Your task to perform on an android device: check out phone information Image 0: 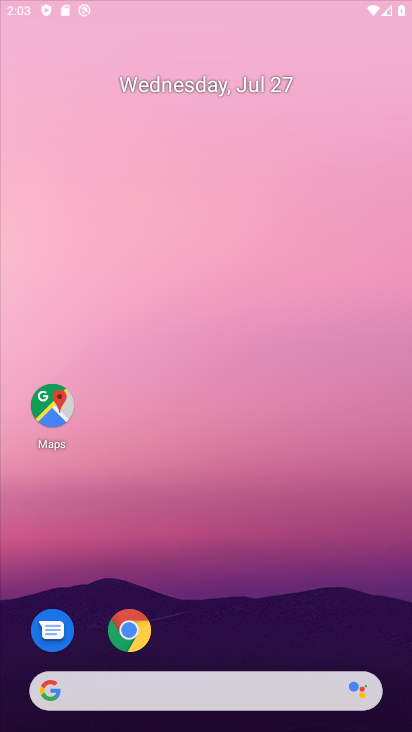
Step 0: press back button
Your task to perform on an android device: check out phone information Image 1: 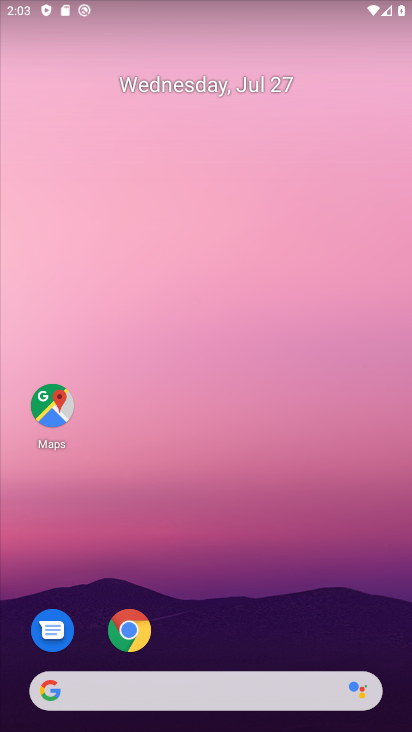
Step 1: drag from (275, 662) to (201, 157)
Your task to perform on an android device: check out phone information Image 2: 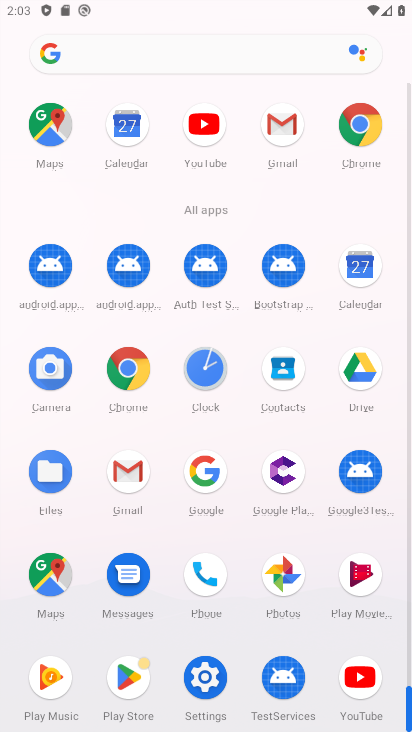
Step 2: click (202, 678)
Your task to perform on an android device: check out phone information Image 3: 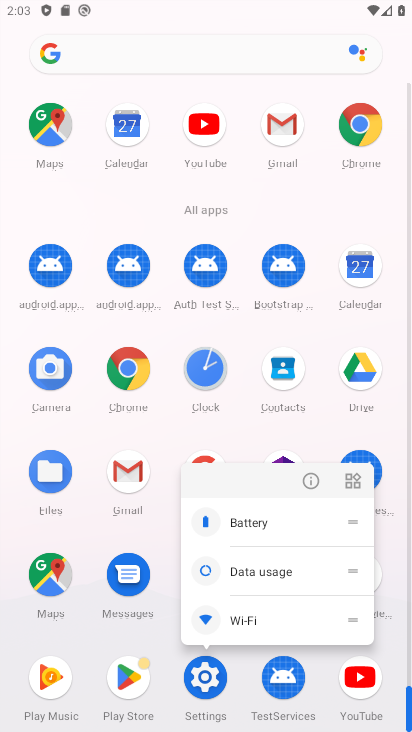
Step 3: click (208, 677)
Your task to perform on an android device: check out phone information Image 4: 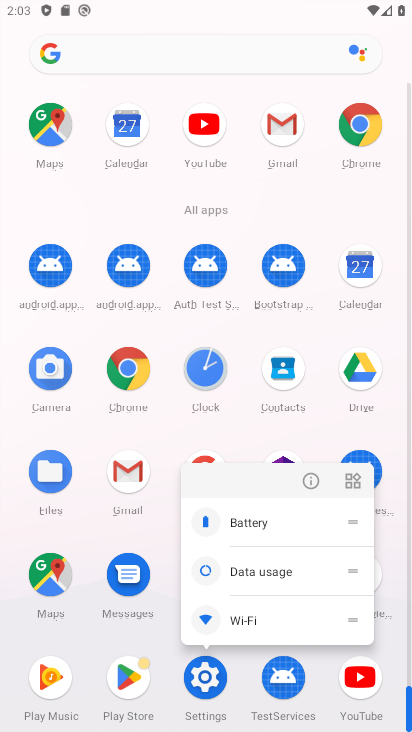
Step 4: click (211, 673)
Your task to perform on an android device: check out phone information Image 5: 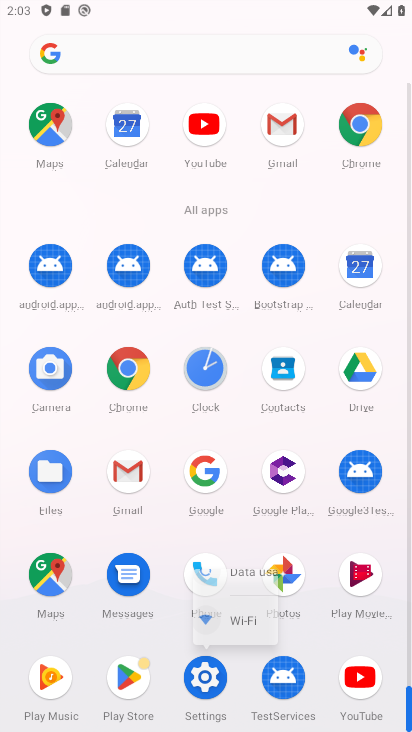
Step 5: click (211, 673)
Your task to perform on an android device: check out phone information Image 6: 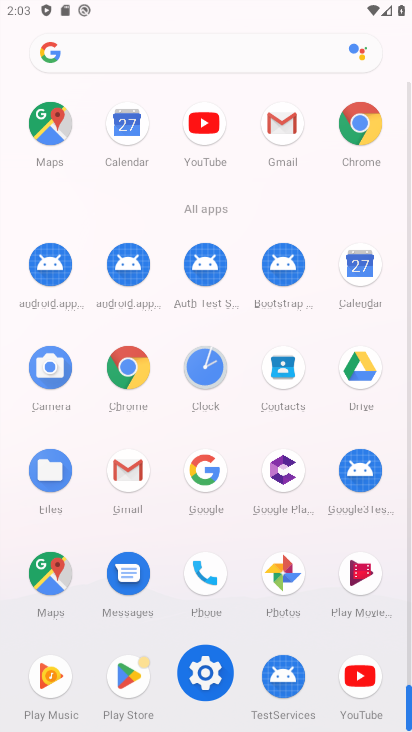
Step 6: click (207, 681)
Your task to perform on an android device: check out phone information Image 7: 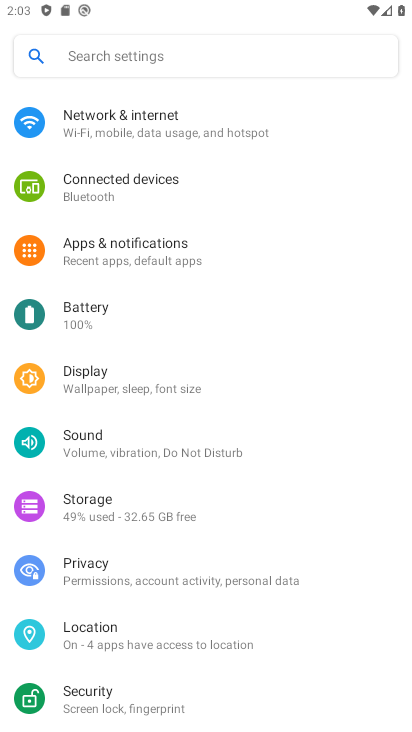
Step 7: click (207, 681)
Your task to perform on an android device: check out phone information Image 8: 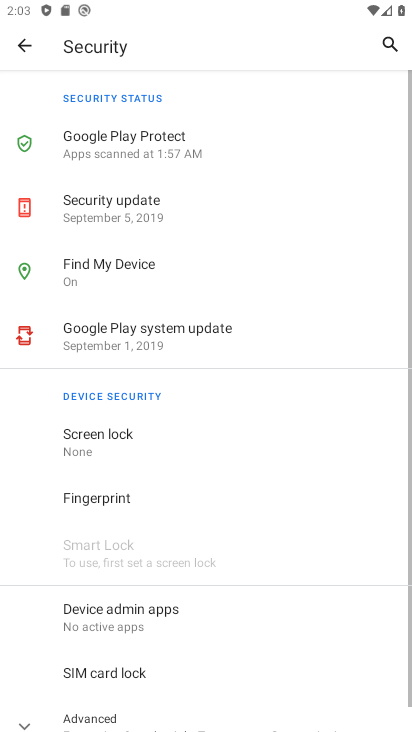
Step 8: click (33, 50)
Your task to perform on an android device: check out phone information Image 9: 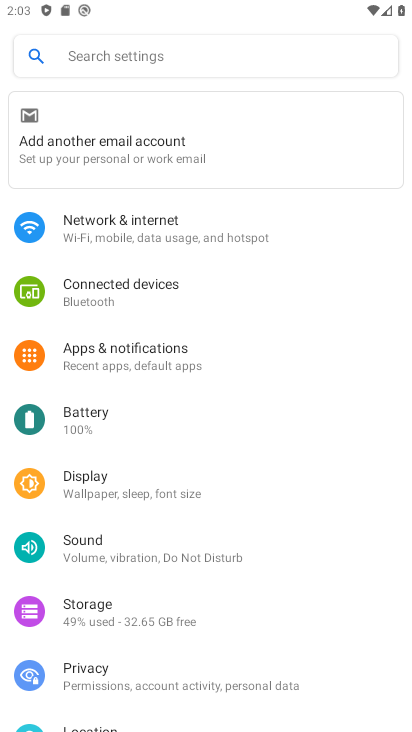
Step 9: drag from (178, 543) to (152, 327)
Your task to perform on an android device: check out phone information Image 10: 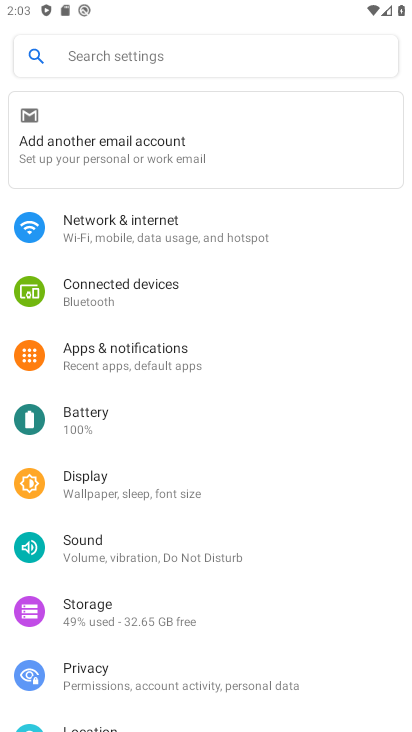
Step 10: drag from (158, 562) to (117, 205)
Your task to perform on an android device: check out phone information Image 11: 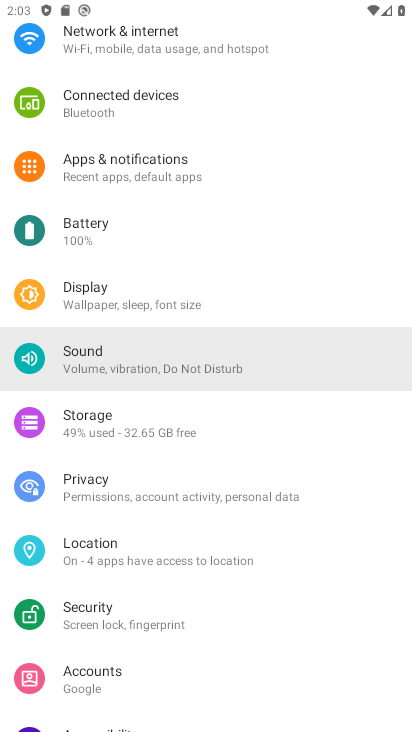
Step 11: drag from (191, 297) to (191, 211)
Your task to perform on an android device: check out phone information Image 12: 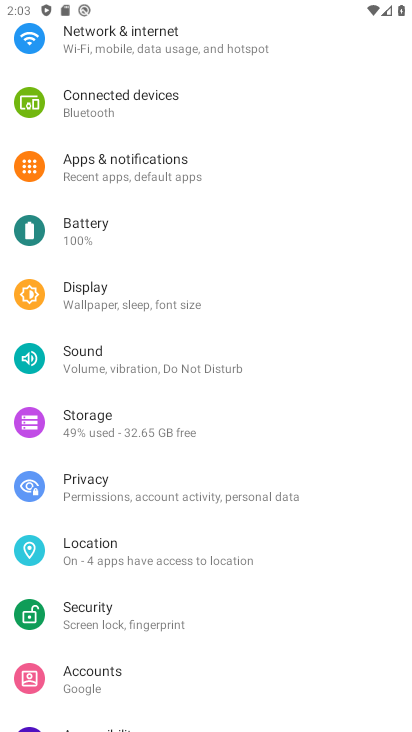
Step 12: drag from (203, 336) to (187, 210)
Your task to perform on an android device: check out phone information Image 13: 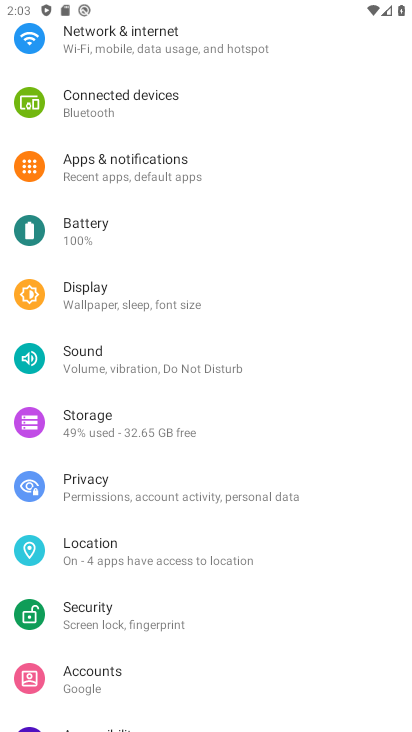
Step 13: drag from (224, 499) to (224, 339)
Your task to perform on an android device: check out phone information Image 14: 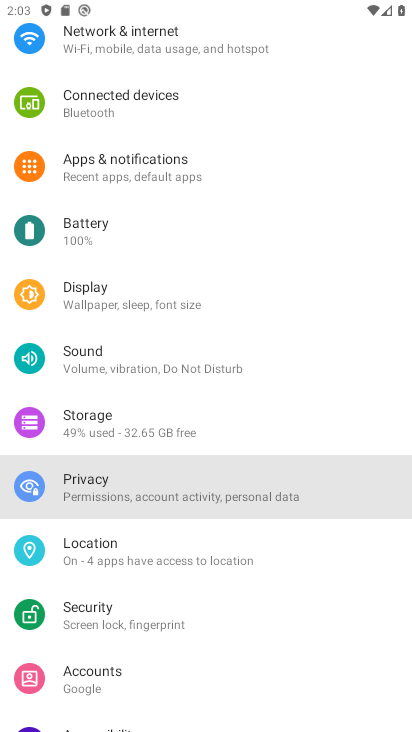
Step 14: drag from (218, 656) to (196, 307)
Your task to perform on an android device: check out phone information Image 15: 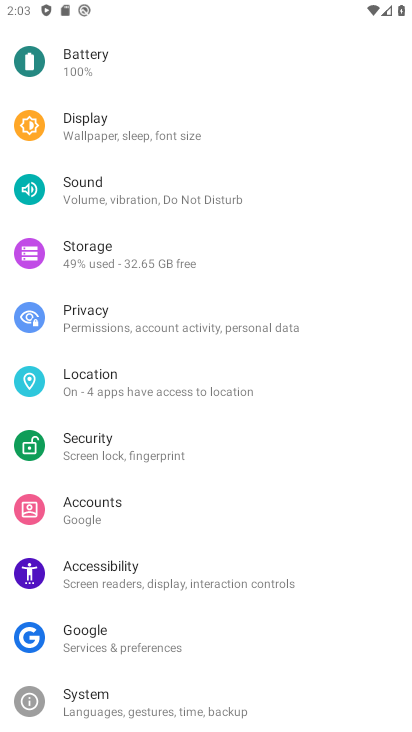
Step 15: drag from (182, 221) to (182, 187)
Your task to perform on an android device: check out phone information Image 16: 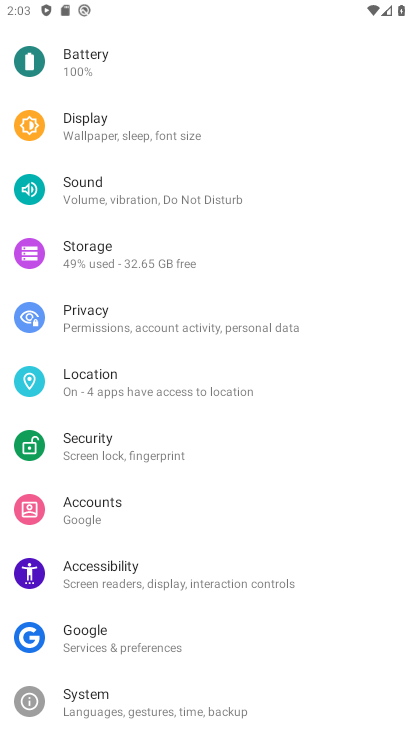
Step 16: drag from (166, 496) to (103, 272)
Your task to perform on an android device: check out phone information Image 17: 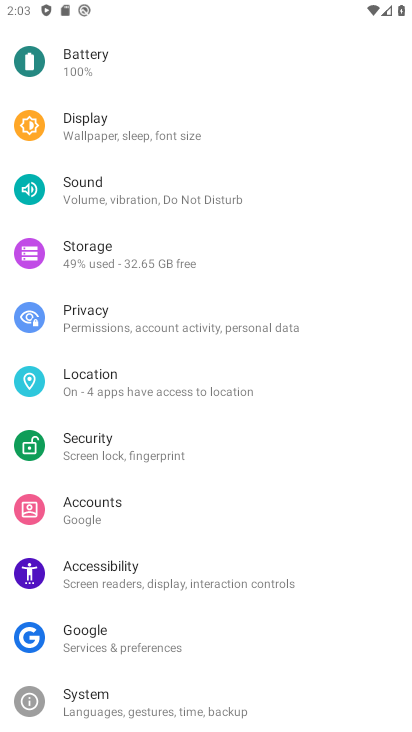
Step 17: drag from (70, 625) to (15, 308)
Your task to perform on an android device: check out phone information Image 18: 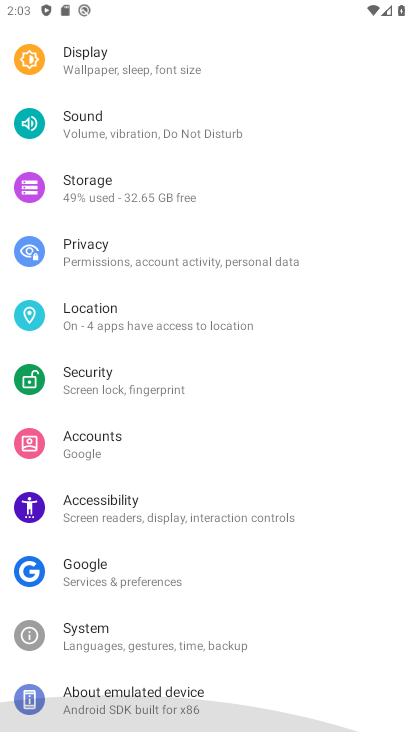
Step 18: drag from (95, 534) to (76, 297)
Your task to perform on an android device: check out phone information Image 19: 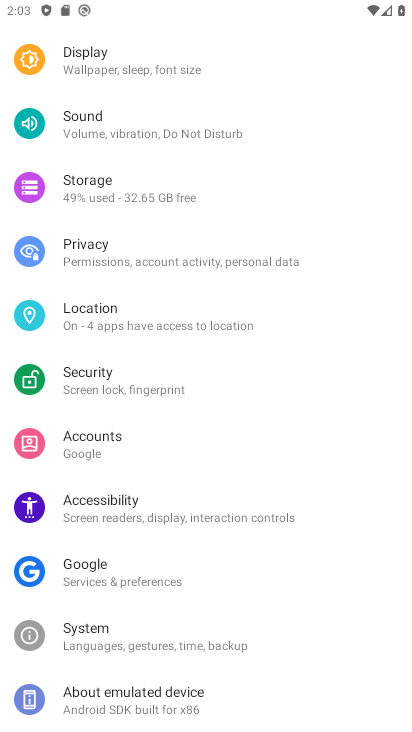
Step 19: click (121, 690)
Your task to perform on an android device: check out phone information Image 20: 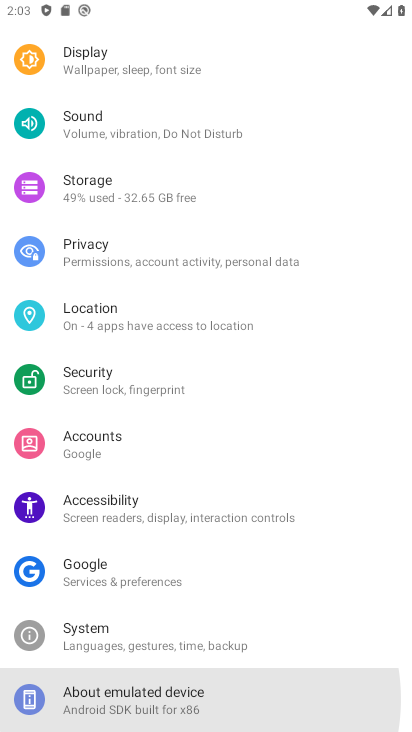
Step 20: click (121, 690)
Your task to perform on an android device: check out phone information Image 21: 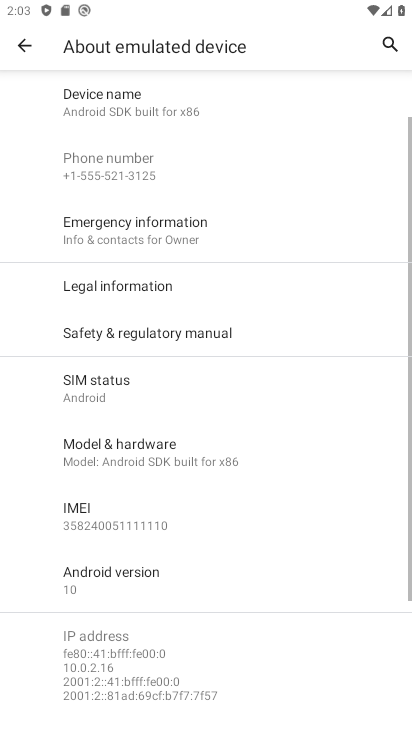
Step 21: task complete